Your task to perform on an android device: turn off wifi Image 0: 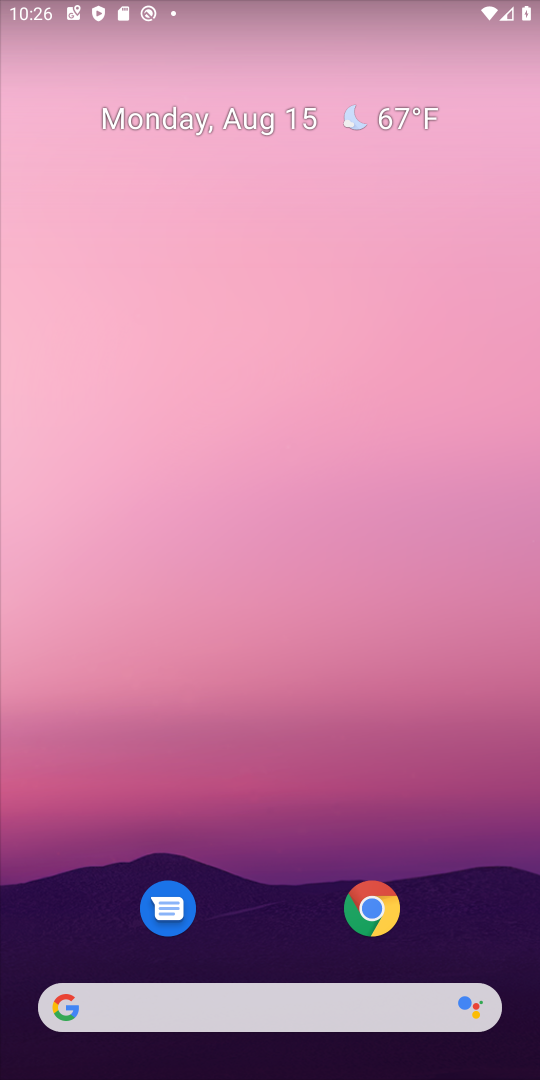
Step 0: drag from (225, 6) to (410, 805)
Your task to perform on an android device: turn off wifi Image 1: 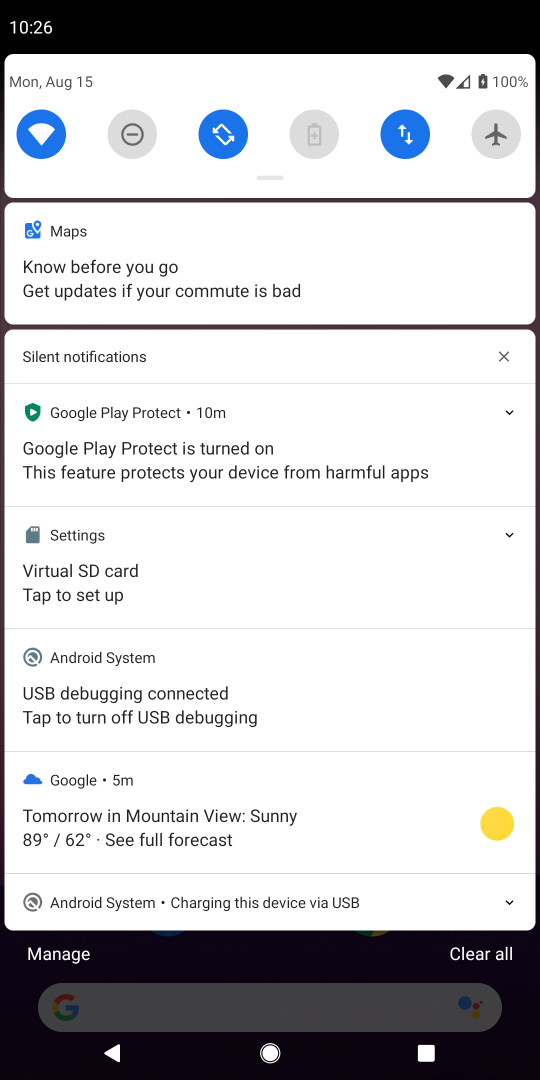
Step 1: click (48, 134)
Your task to perform on an android device: turn off wifi Image 2: 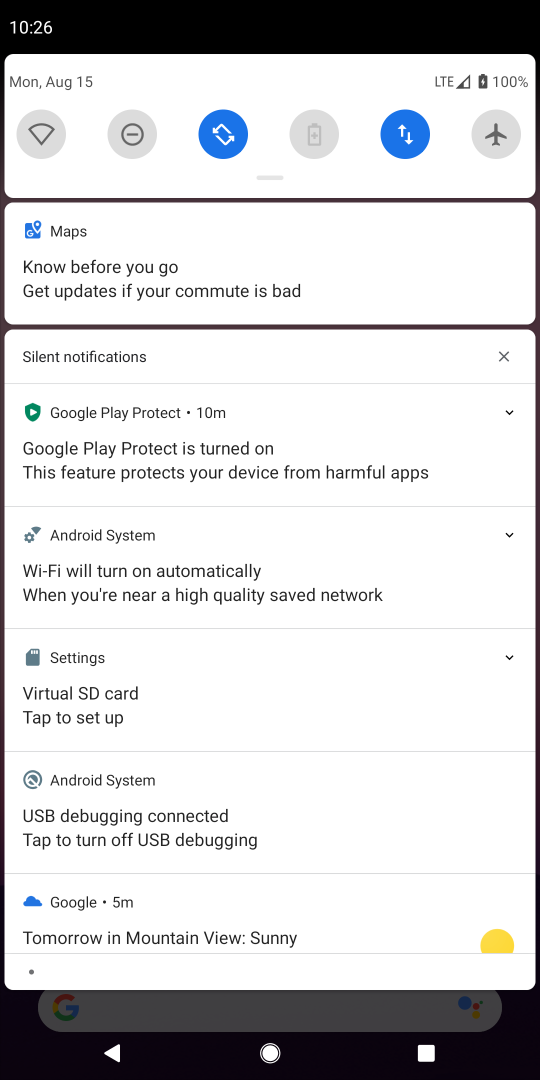
Step 2: task complete